Your task to perform on an android device: Open the map Image 0: 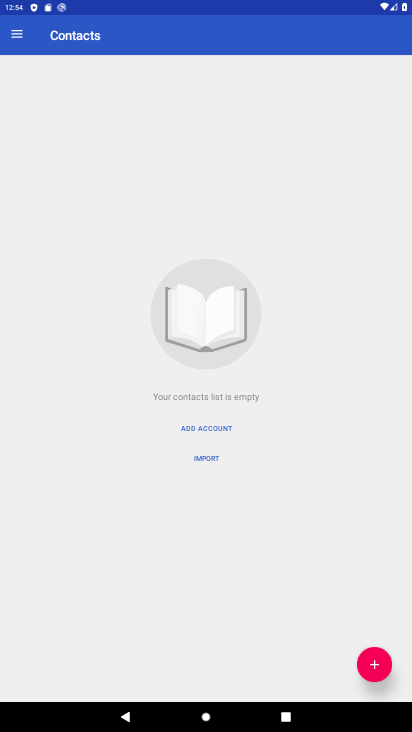
Step 0: press home button
Your task to perform on an android device: Open the map Image 1: 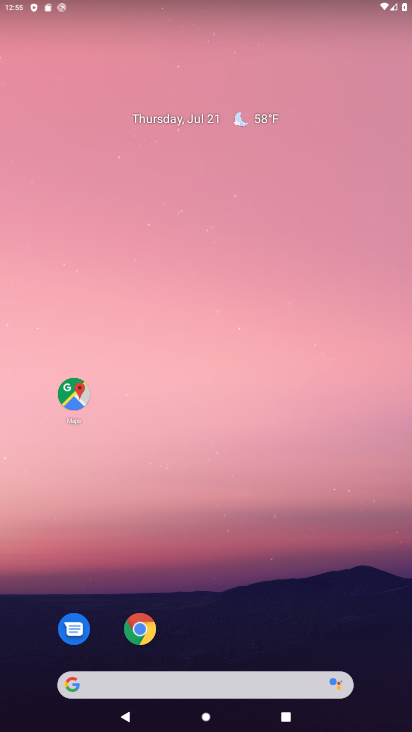
Step 1: click (72, 398)
Your task to perform on an android device: Open the map Image 2: 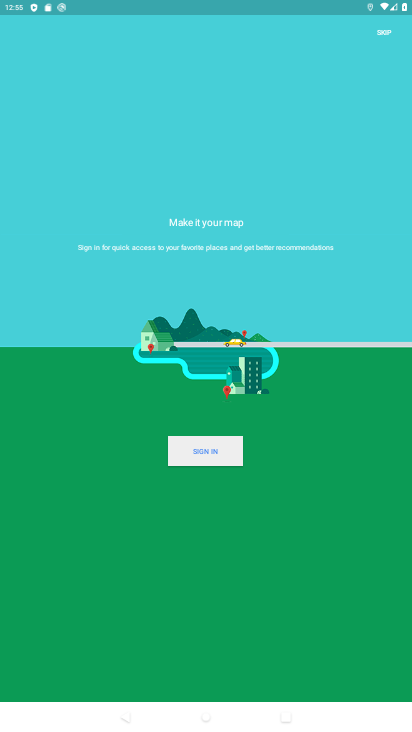
Step 2: click (199, 452)
Your task to perform on an android device: Open the map Image 3: 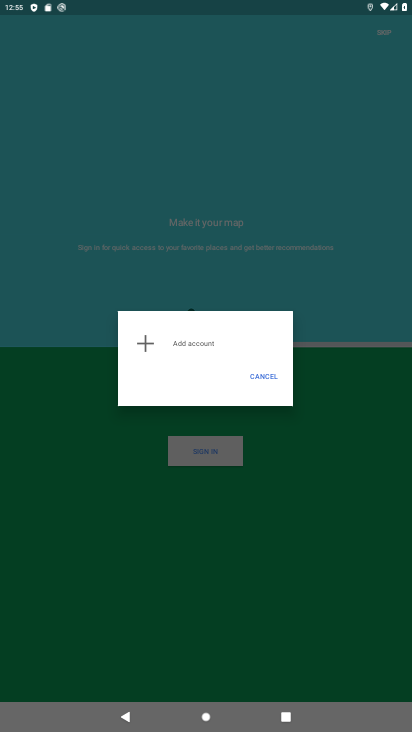
Step 3: click (270, 373)
Your task to perform on an android device: Open the map Image 4: 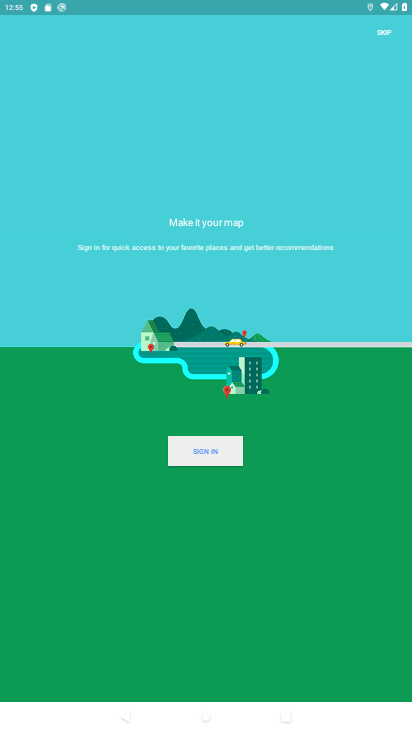
Step 4: task complete